Your task to perform on an android device: open a bookmark in the chrome app Image 0: 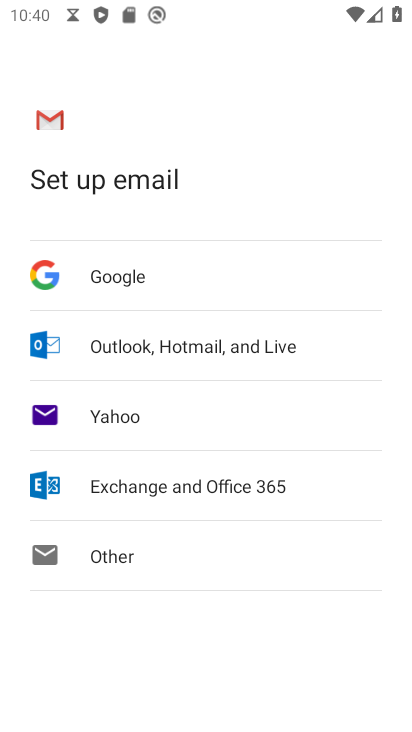
Step 0: press back button
Your task to perform on an android device: open a bookmark in the chrome app Image 1: 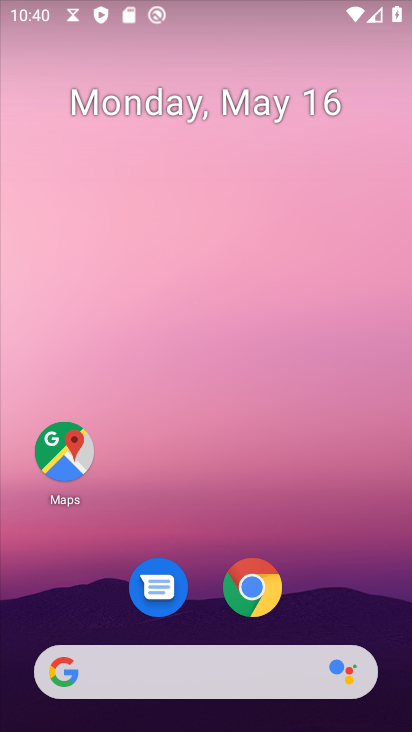
Step 1: drag from (350, 609) to (246, 9)
Your task to perform on an android device: open a bookmark in the chrome app Image 2: 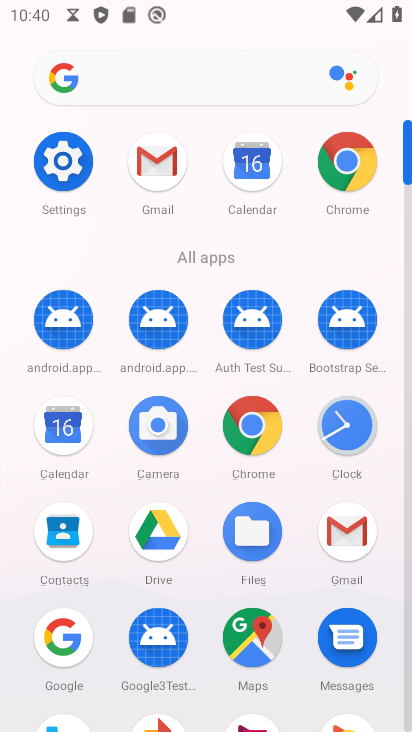
Step 2: drag from (18, 567) to (14, 189)
Your task to perform on an android device: open a bookmark in the chrome app Image 3: 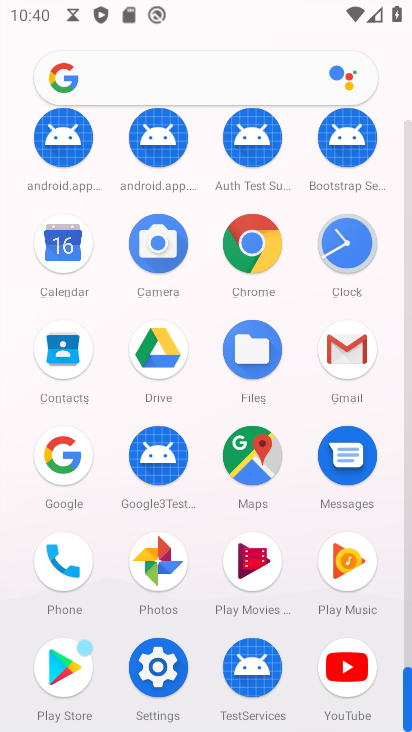
Step 3: click (252, 239)
Your task to perform on an android device: open a bookmark in the chrome app Image 4: 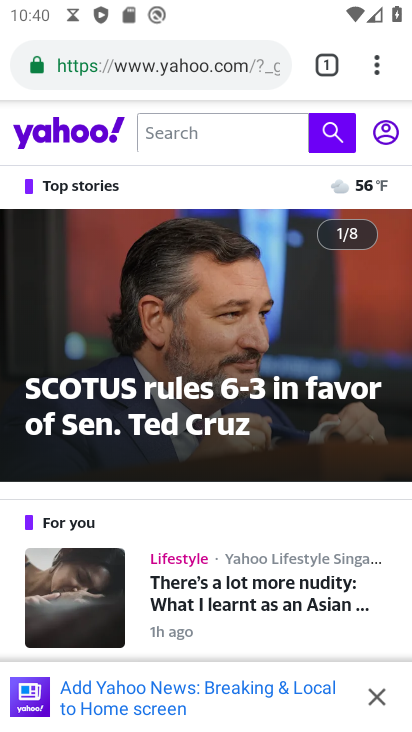
Step 4: task complete